Your task to perform on an android device: Search for "usb-c to usb-a" on target, select the first entry, and add it to the cart. Image 0: 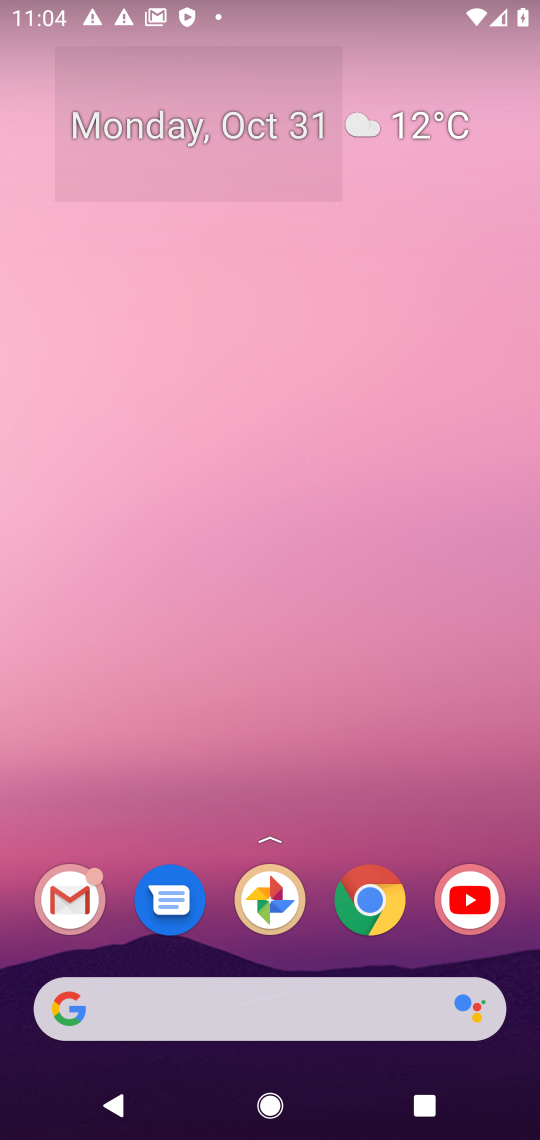
Step 0: click (314, 1017)
Your task to perform on an android device: Search for "usb-c to usb-a" on target, select the first entry, and add it to the cart. Image 1: 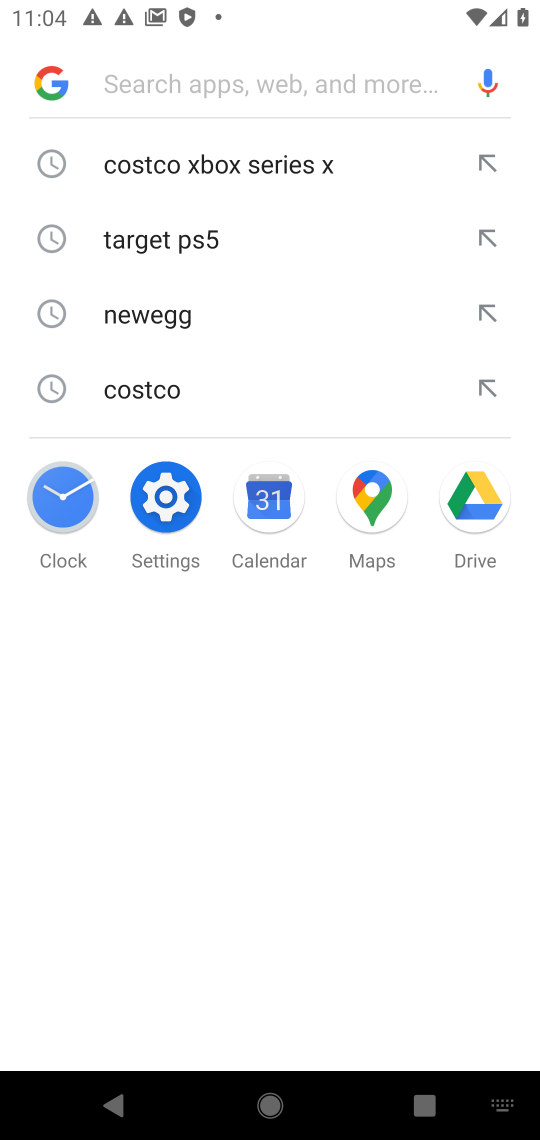
Step 1: click (162, 378)
Your task to perform on an android device: Search for "usb-c to usb-a" on target, select the first entry, and add it to the cart. Image 2: 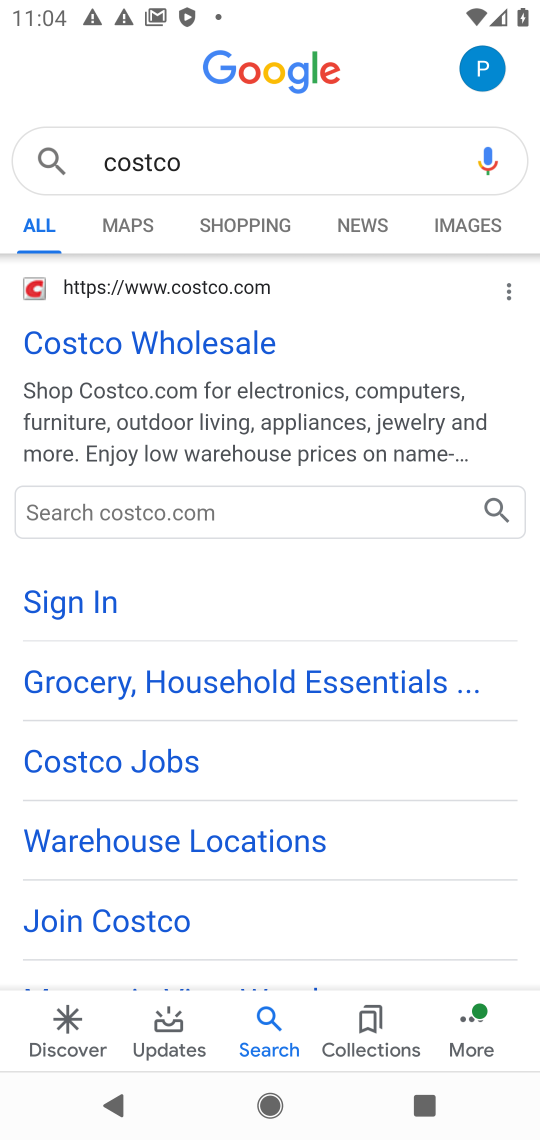
Step 2: click (179, 340)
Your task to perform on an android device: Search for "usb-c to usb-a" on target, select the first entry, and add it to the cart. Image 3: 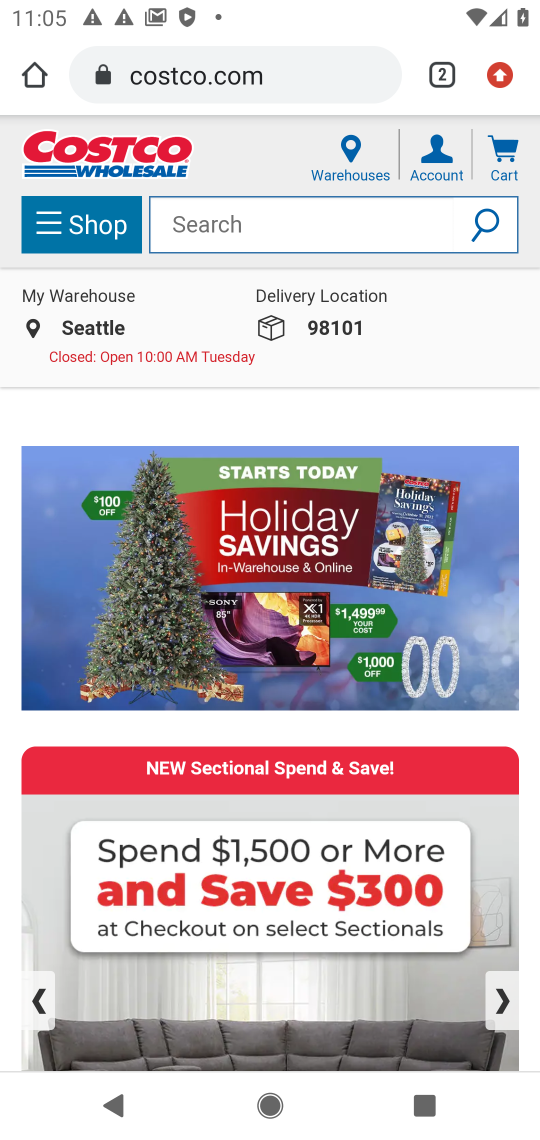
Step 3: click (311, 224)
Your task to perform on an android device: Search for "usb-c to usb-a" on target, select the first entry, and add it to the cart. Image 4: 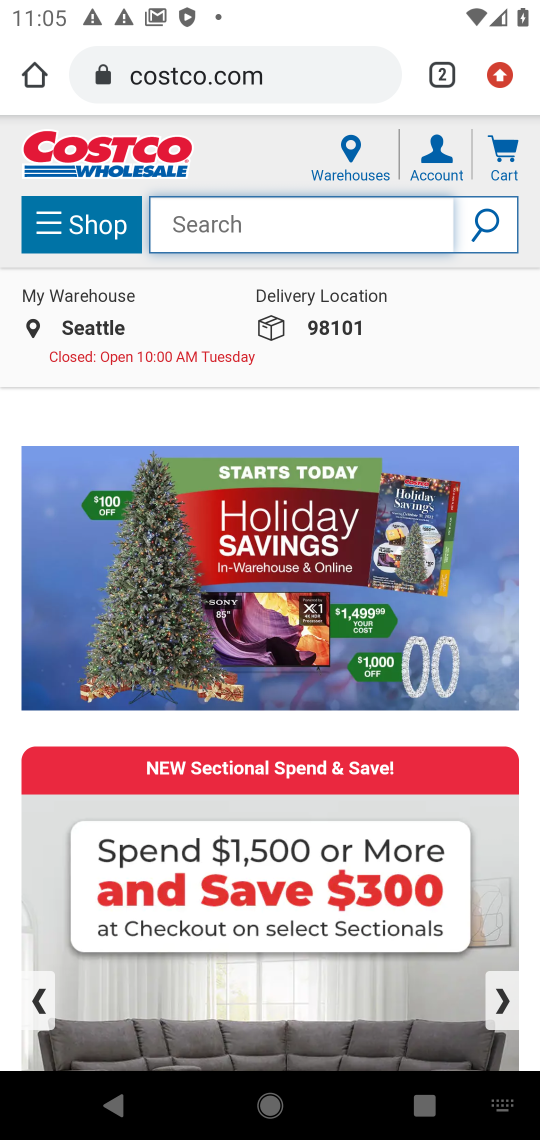
Step 4: type "usb-c to usb-a"
Your task to perform on an android device: Search for "usb-c to usb-a" on target, select the first entry, and add it to the cart. Image 5: 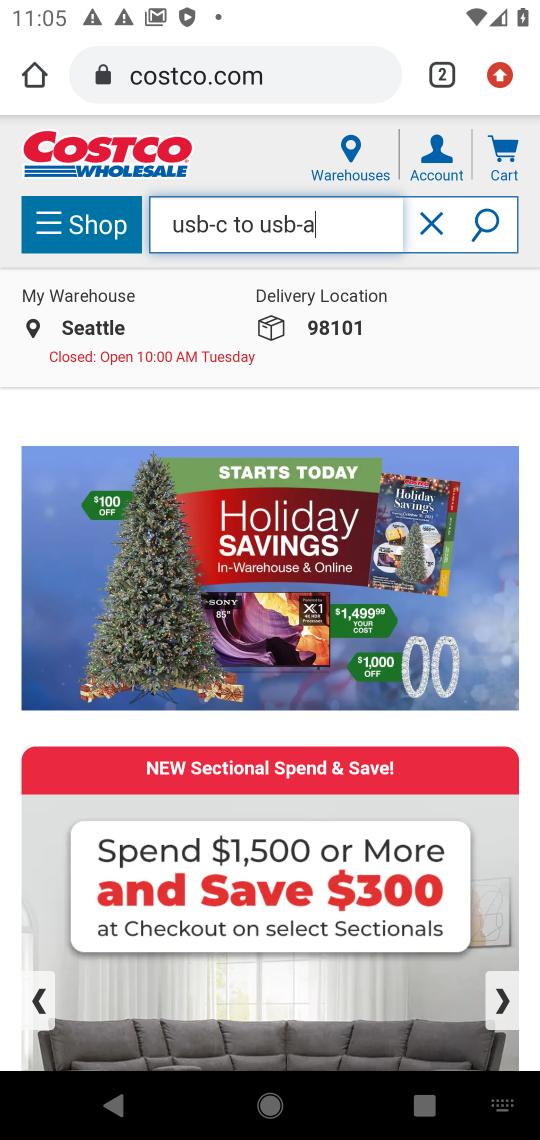
Step 5: type ""
Your task to perform on an android device: Search for "usb-c to usb-a" on target, select the first entry, and add it to the cart. Image 6: 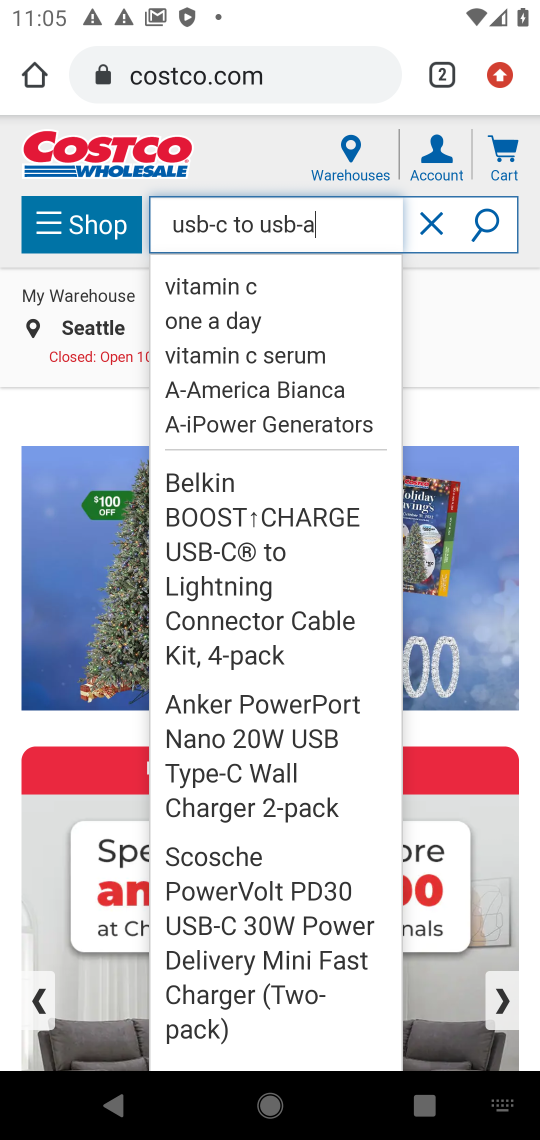
Step 6: press enter
Your task to perform on an android device: Search for "usb-c to usb-a" on target, select the first entry, and add it to the cart. Image 7: 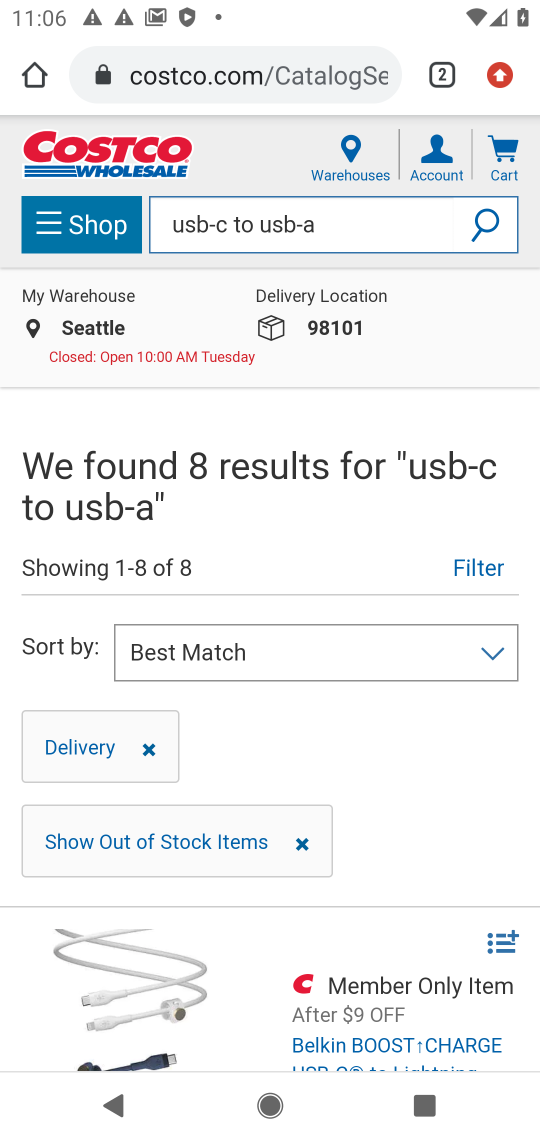
Step 7: drag from (398, 857) to (388, 326)
Your task to perform on an android device: Search for "usb-c to usb-a" on target, select the first entry, and add it to the cart. Image 8: 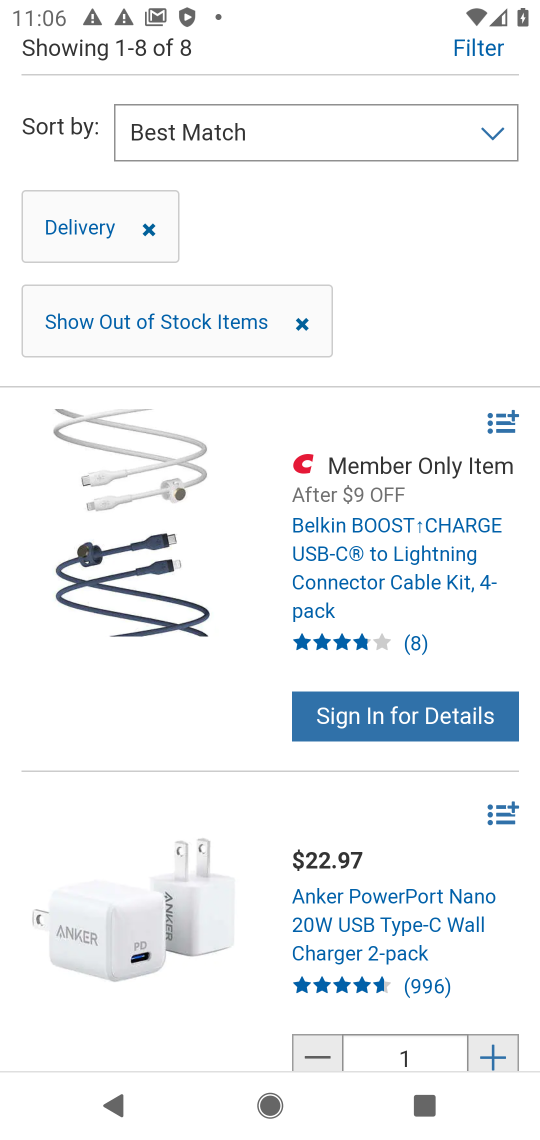
Step 8: click (147, 551)
Your task to perform on an android device: Search for "usb-c to usb-a" on target, select the first entry, and add it to the cart. Image 9: 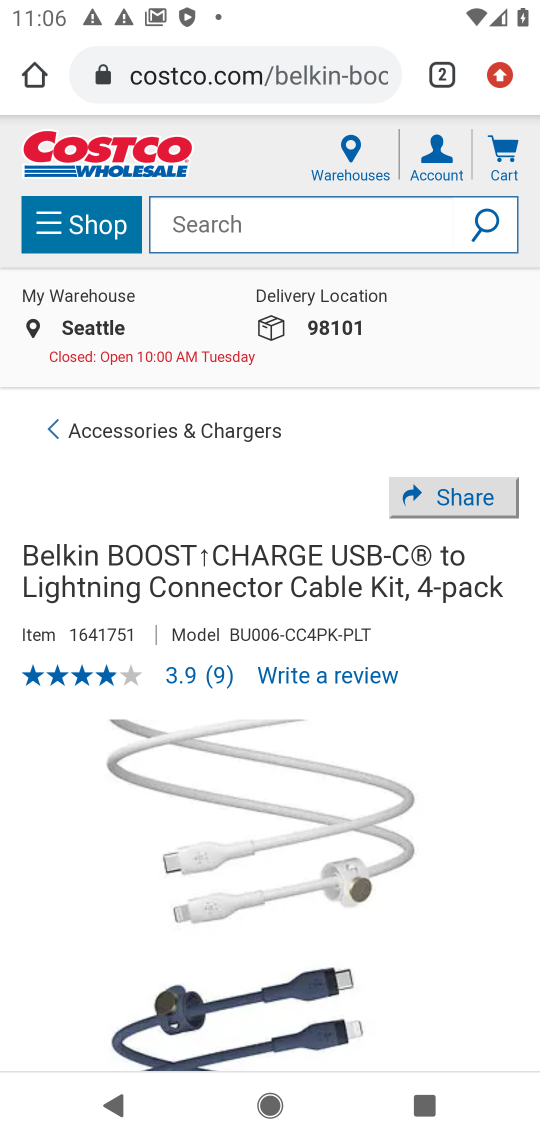
Step 9: drag from (203, 981) to (232, 528)
Your task to perform on an android device: Search for "usb-c to usb-a" on target, select the first entry, and add it to the cart. Image 10: 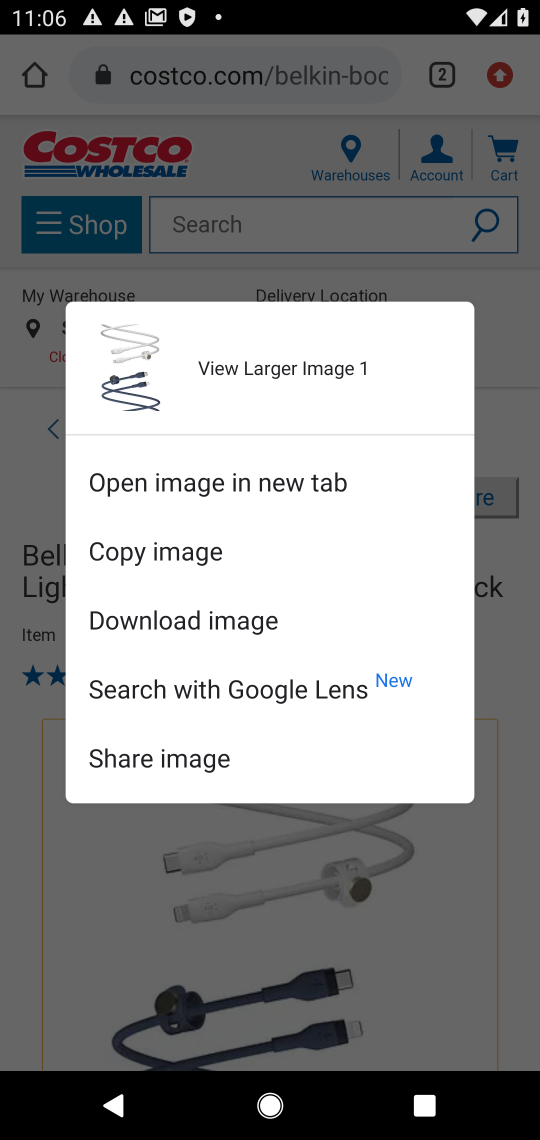
Step 10: click (496, 691)
Your task to perform on an android device: Search for "usb-c to usb-a" on target, select the first entry, and add it to the cart. Image 11: 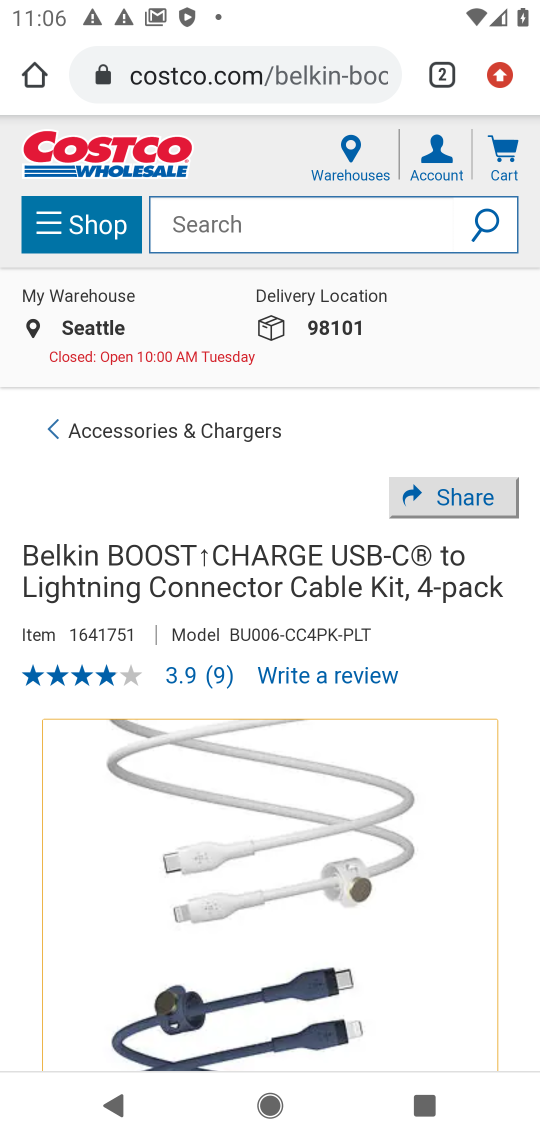
Step 11: click (489, 700)
Your task to perform on an android device: Search for "usb-c to usb-a" on target, select the first entry, and add it to the cart. Image 12: 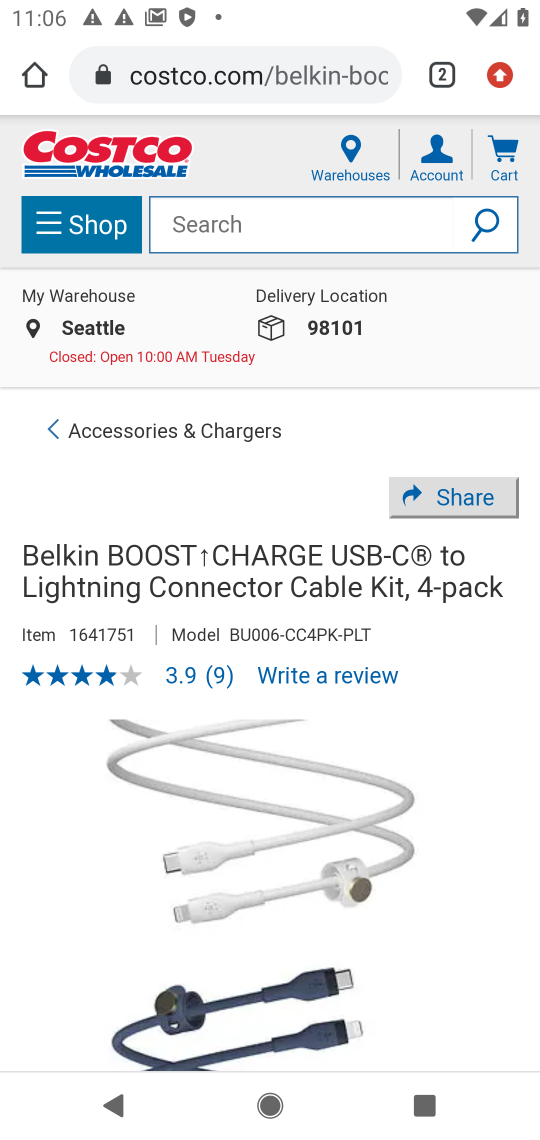
Step 12: drag from (518, 764) to (485, 513)
Your task to perform on an android device: Search for "usb-c to usb-a" on target, select the first entry, and add it to the cart. Image 13: 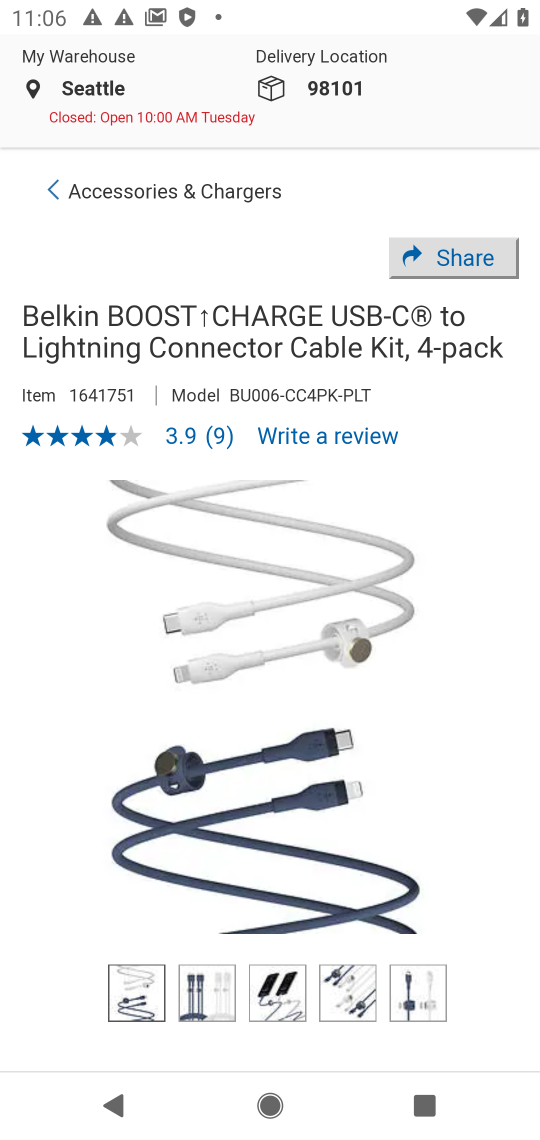
Step 13: drag from (77, 850) to (33, 521)
Your task to perform on an android device: Search for "usb-c to usb-a" on target, select the first entry, and add it to the cart. Image 14: 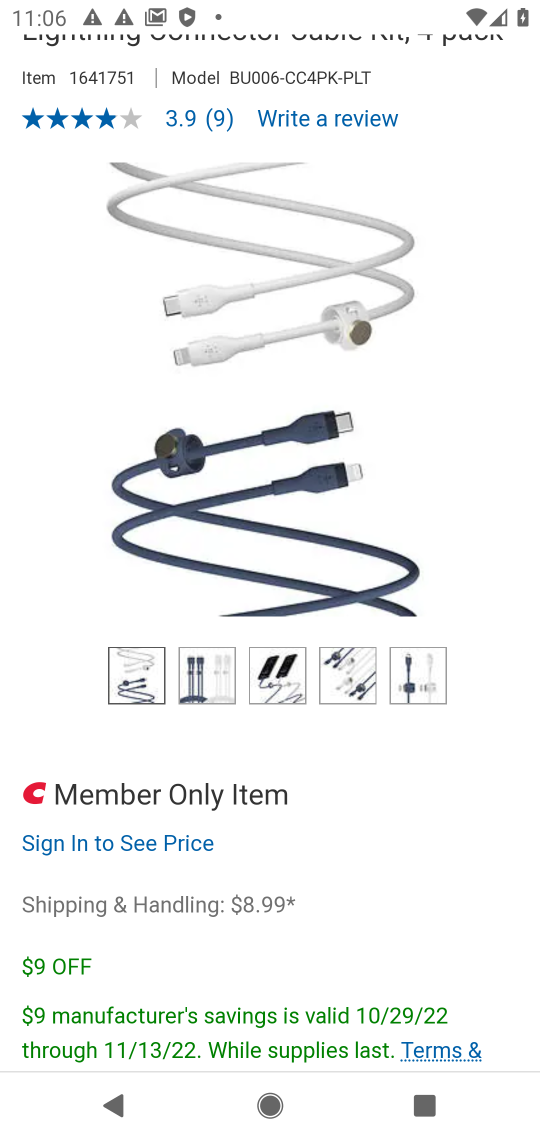
Step 14: drag from (37, 566) to (37, 466)
Your task to perform on an android device: Search for "usb-c to usb-a" on target, select the first entry, and add it to the cart. Image 15: 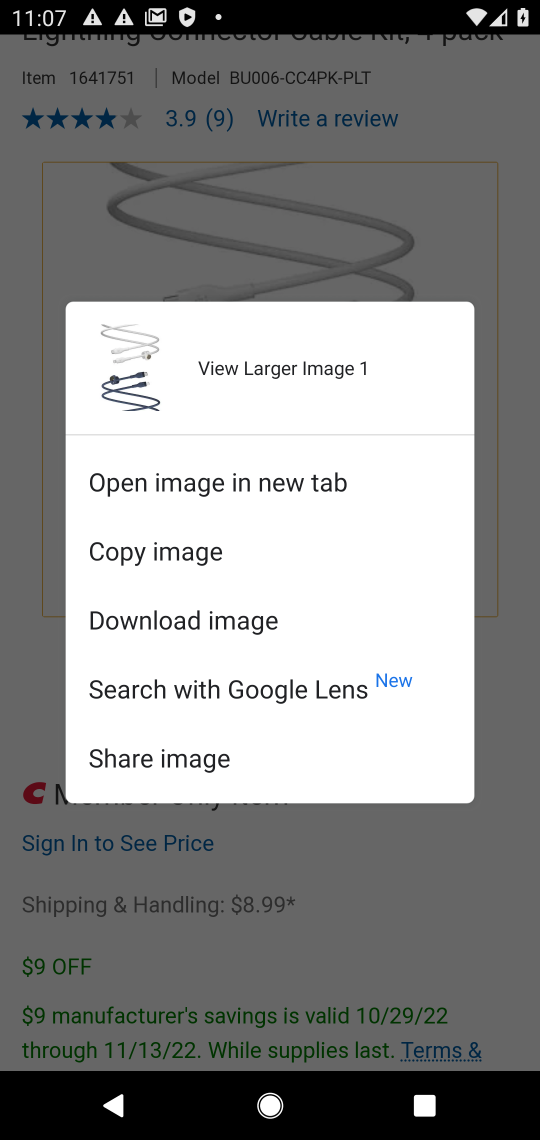
Step 15: click (47, 553)
Your task to perform on an android device: Search for "usb-c to usb-a" on target, select the first entry, and add it to the cart. Image 16: 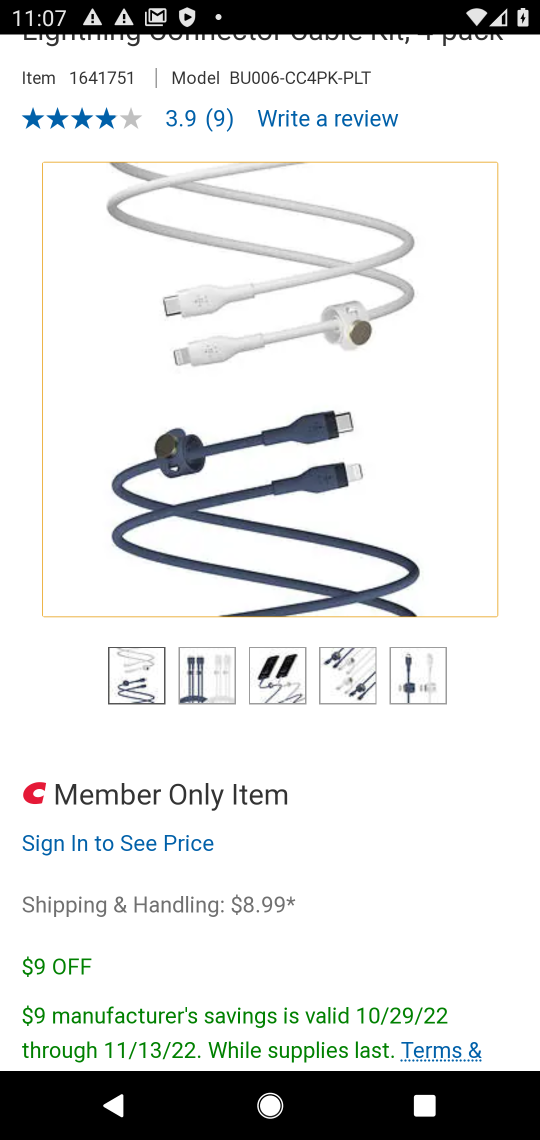
Step 16: click (21, 630)
Your task to perform on an android device: Search for "usb-c to usb-a" on target, select the first entry, and add it to the cart. Image 17: 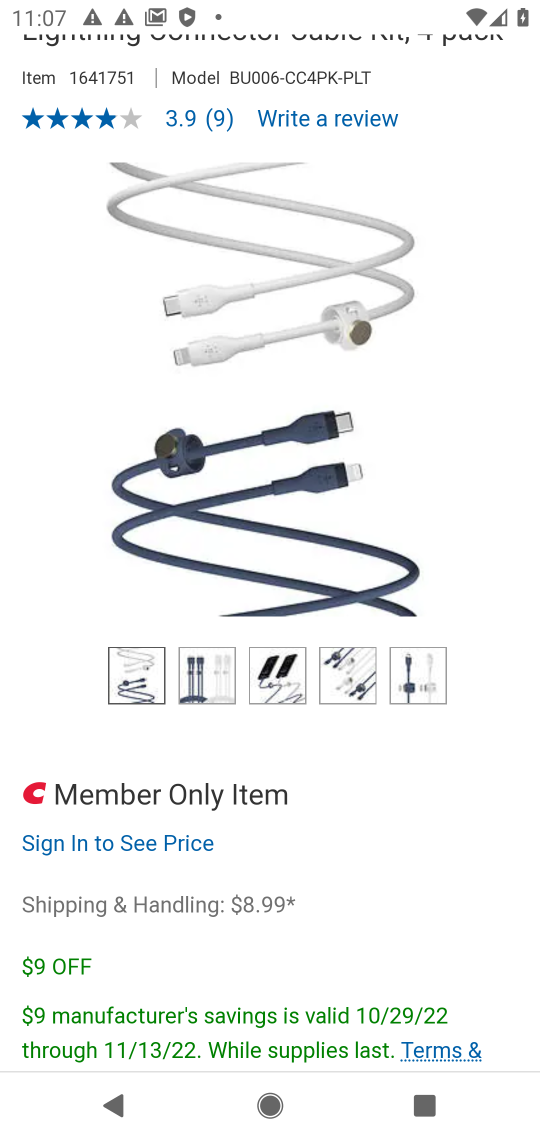
Step 17: drag from (26, 719) to (77, 208)
Your task to perform on an android device: Search for "usb-c to usb-a" on target, select the first entry, and add it to the cart. Image 18: 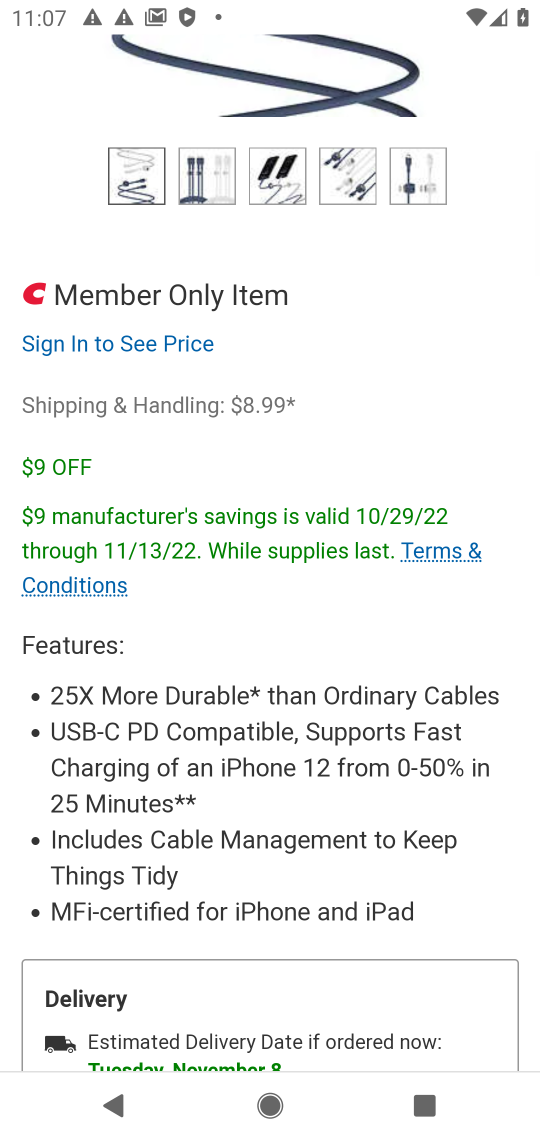
Step 18: drag from (50, 883) to (71, 577)
Your task to perform on an android device: Search for "usb-c to usb-a" on target, select the first entry, and add it to the cart. Image 19: 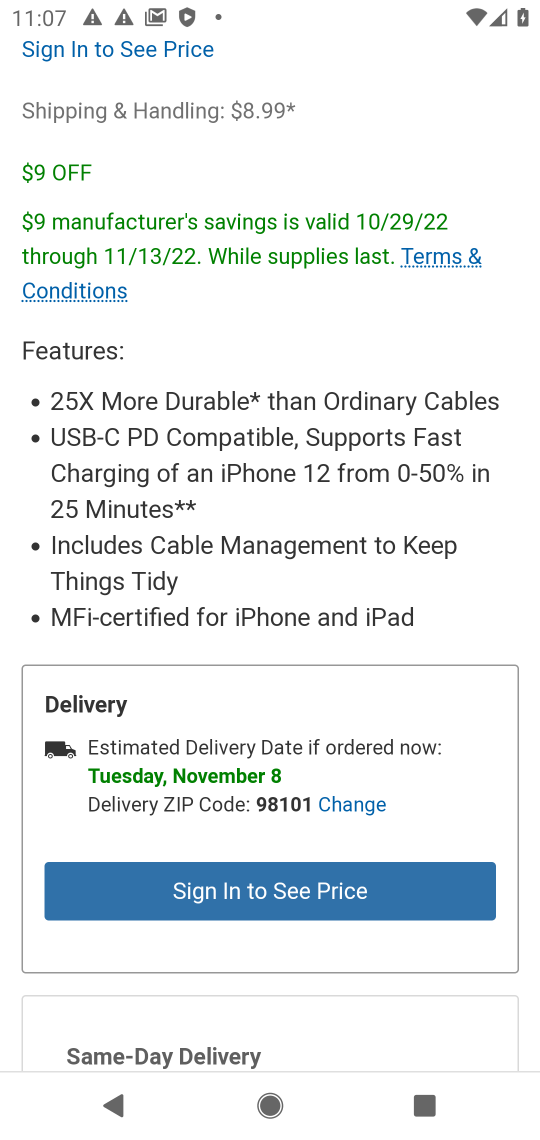
Step 19: drag from (127, 287) to (153, 242)
Your task to perform on an android device: Search for "usb-c to usb-a" on target, select the first entry, and add it to the cart. Image 20: 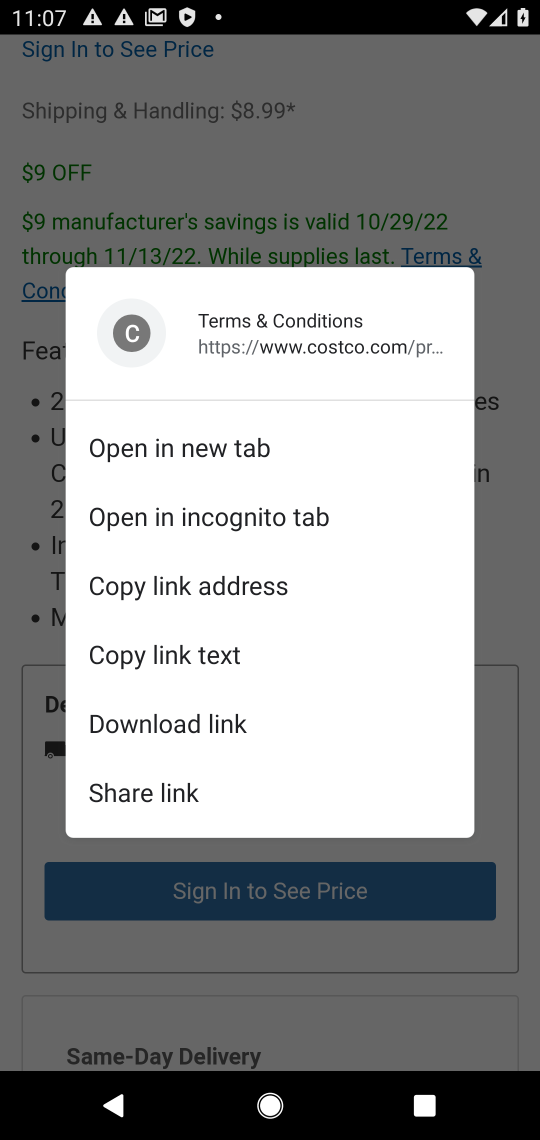
Step 20: click (340, 187)
Your task to perform on an android device: Search for "usb-c to usb-a" on target, select the first entry, and add it to the cart. Image 21: 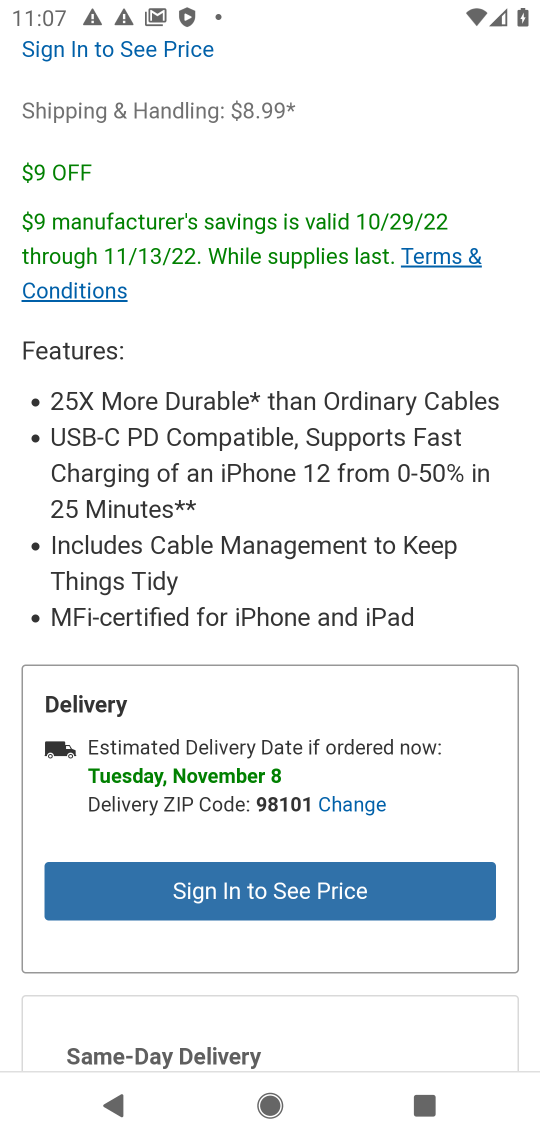
Step 21: drag from (361, 945) to (367, 322)
Your task to perform on an android device: Search for "usb-c to usb-a" on target, select the first entry, and add it to the cart. Image 22: 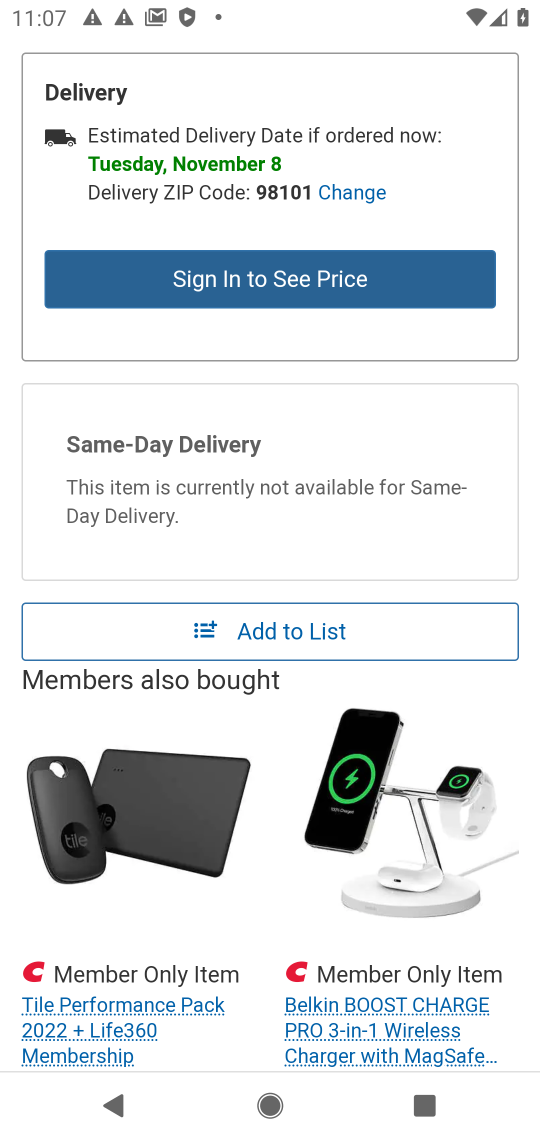
Step 22: click (327, 638)
Your task to perform on an android device: Search for "usb-c to usb-a" on target, select the first entry, and add it to the cart. Image 23: 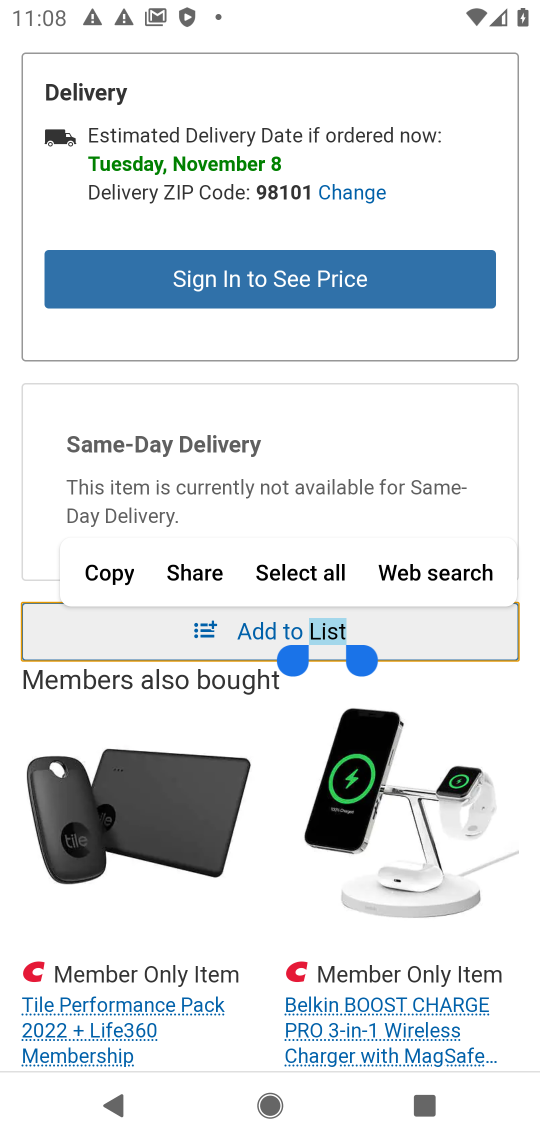
Step 23: click (271, 641)
Your task to perform on an android device: Search for "usb-c to usb-a" on target, select the first entry, and add it to the cart. Image 24: 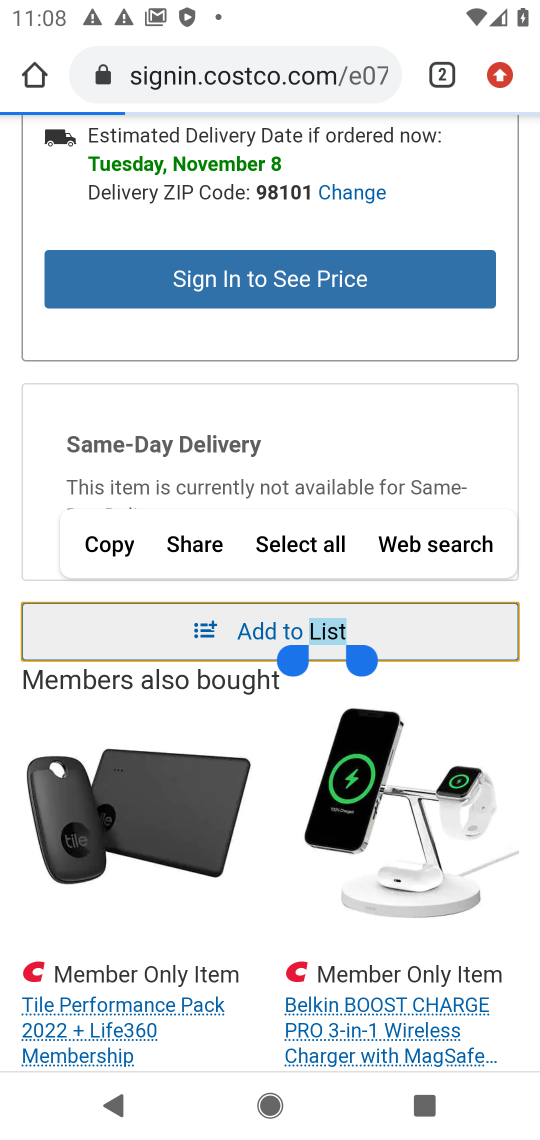
Step 24: click (265, 631)
Your task to perform on an android device: Search for "usb-c to usb-a" on target, select the first entry, and add it to the cart. Image 25: 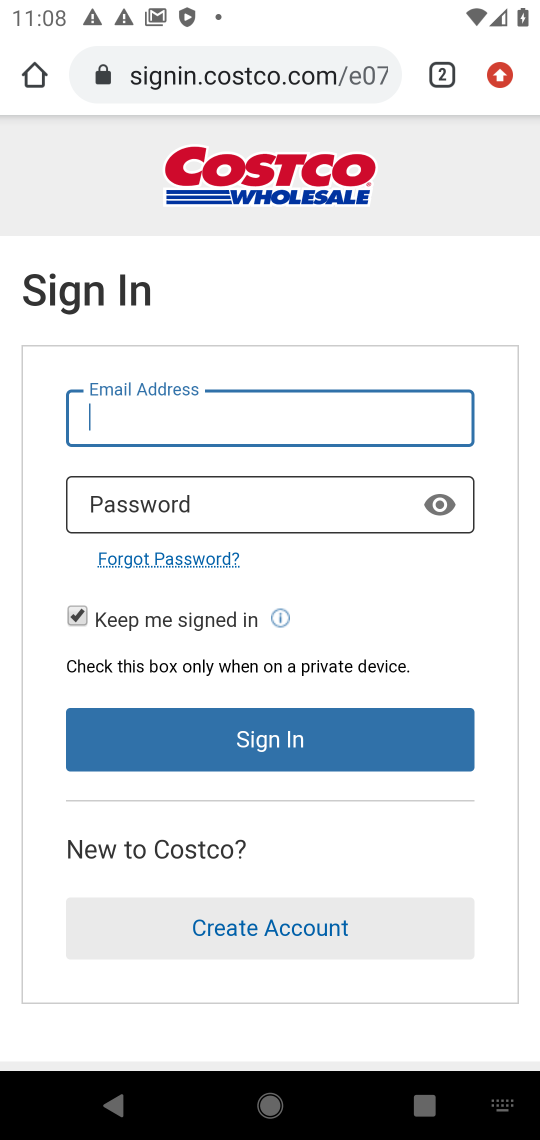
Step 25: task complete